Your task to perform on an android device: show emergency info Image 0: 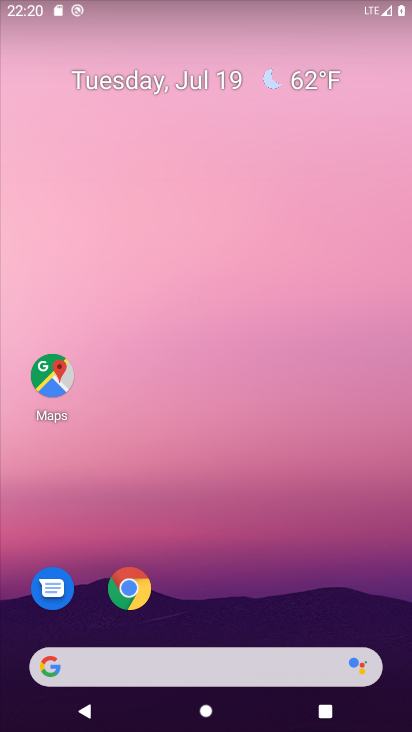
Step 0: drag from (185, 601) to (217, 113)
Your task to perform on an android device: show emergency info Image 1: 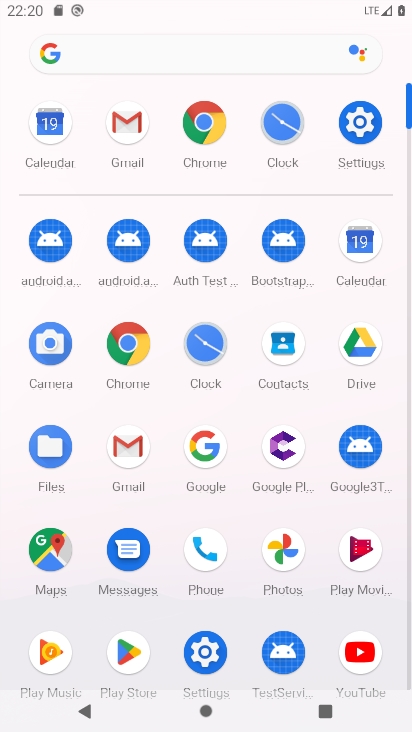
Step 1: click (358, 134)
Your task to perform on an android device: show emergency info Image 2: 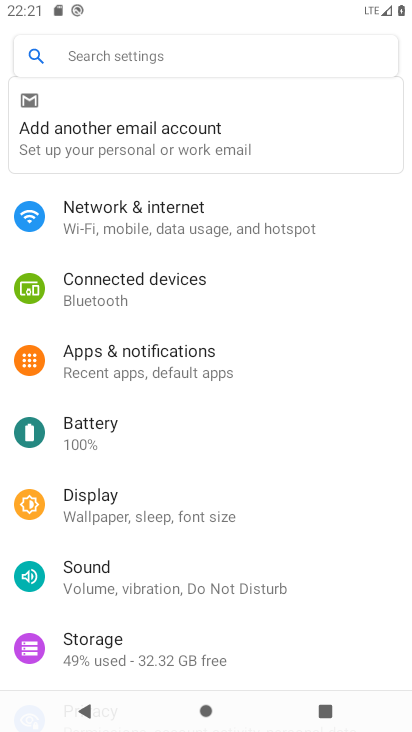
Step 2: drag from (119, 602) to (136, 326)
Your task to perform on an android device: show emergency info Image 3: 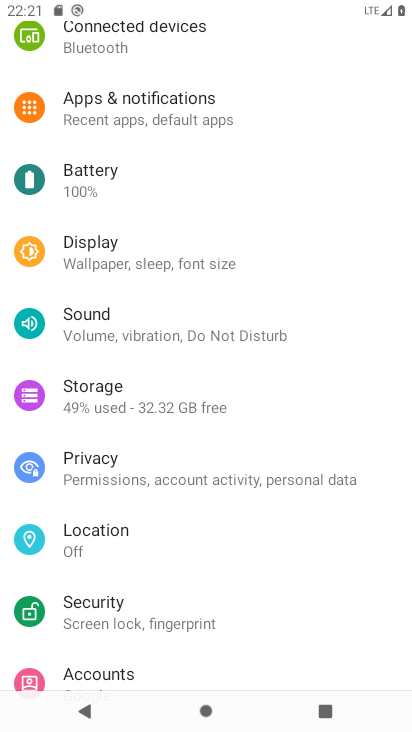
Step 3: drag from (145, 597) to (157, 216)
Your task to perform on an android device: show emergency info Image 4: 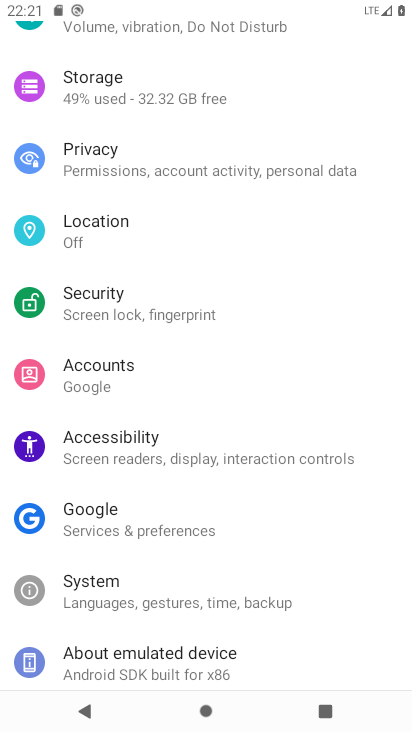
Step 4: click (102, 660)
Your task to perform on an android device: show emergency info Image 5: 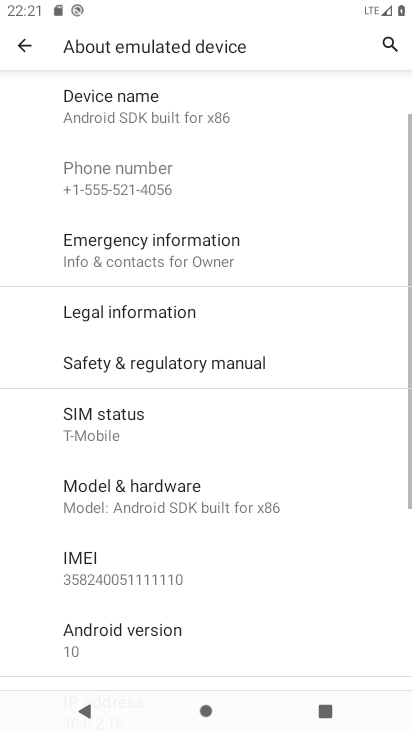
Step 5: click (143, 252)
Your task to perform on an android device: show emergency info Image 6: 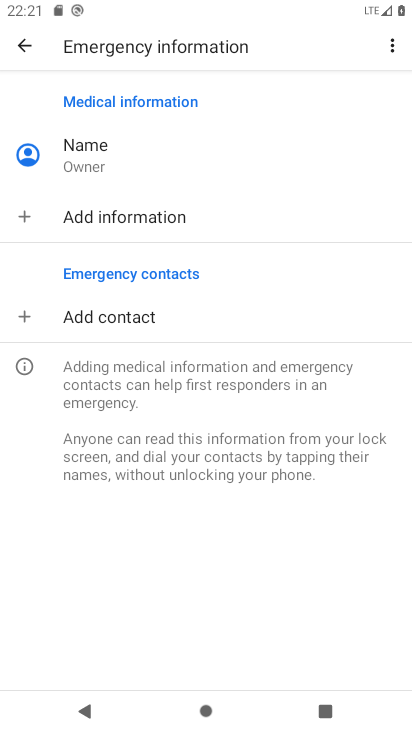
Step 6: task complete